Your task to perform on an android device: turn on the 12-hour format for clock Image 0: 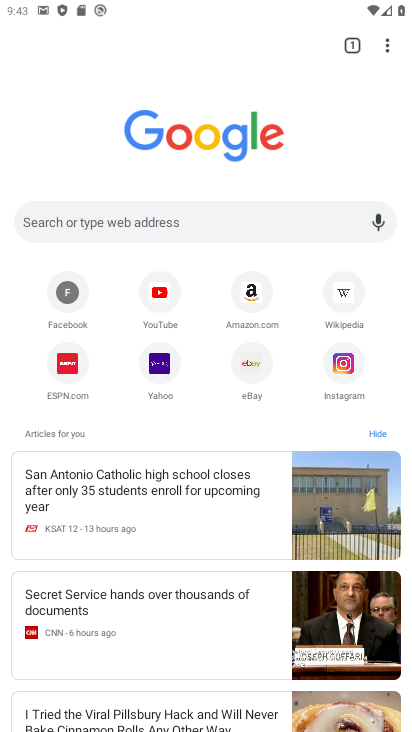
Step 0: press home button
Your task to perform on an android device: turn on the 12-hour format for clock Image 1: 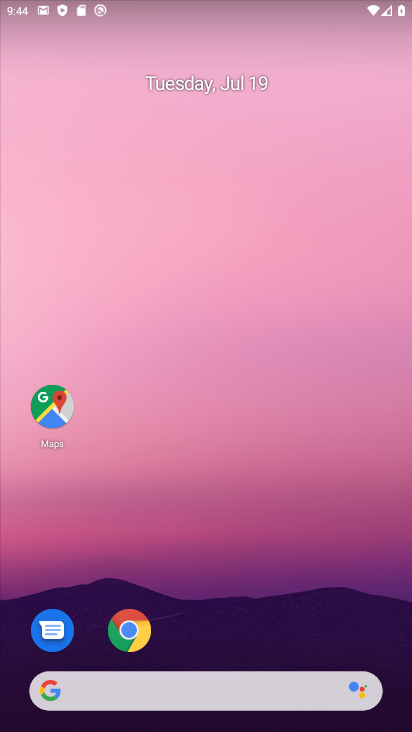
Step 1: drag from (284, 622) to (248, 189)
Your task to perform on an android device: turn on the 12-hour format for clock Image 2: 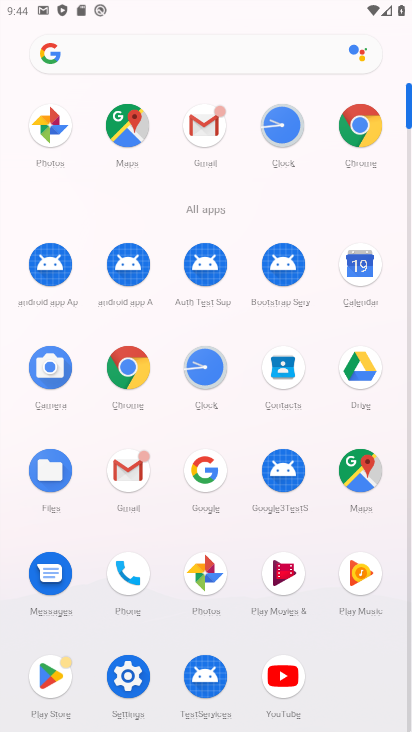
Step 2: click (202, 380)
Your task to perform on an android device: turn on the 12-hour format for clock Image 3: 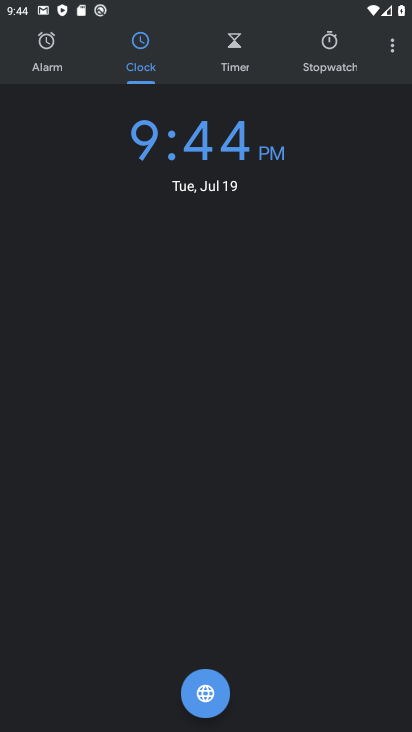
Step 3: click (392, 46)
Your task to perform on an android device: turn on the 12-hour format for clock Image 4: 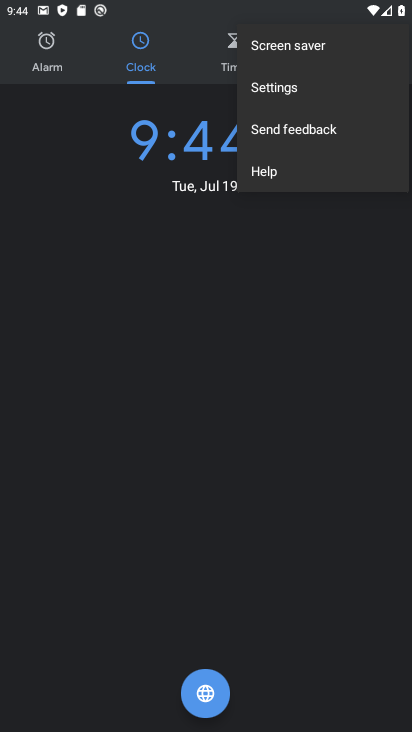
Step 4: click (282, 94)
Your task to perform on an android device: turn on the 12-hour format for clock Image 5: 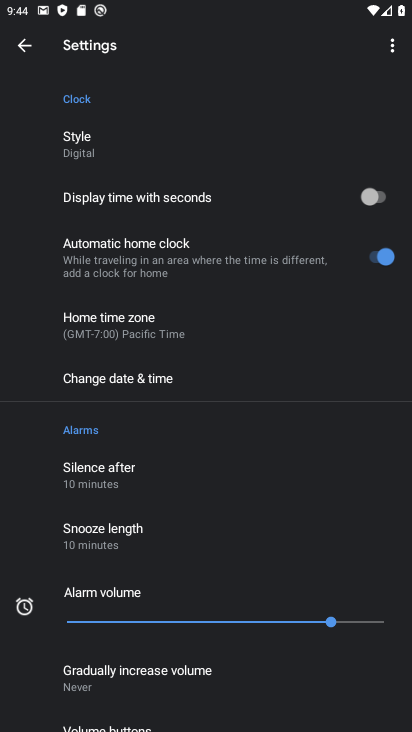
Step 5: click (201, 381)
Your task to perform on an android device: turn on the 12-hour format for clock Image 6: 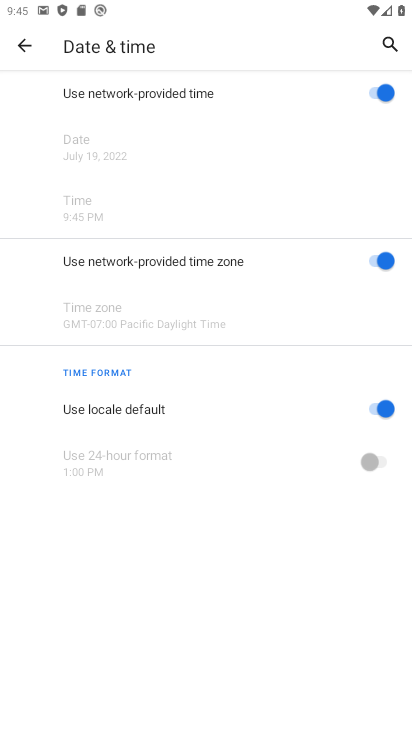
Step 6: task complete